Your task to perform on an android device: open wifi settings Image 0: 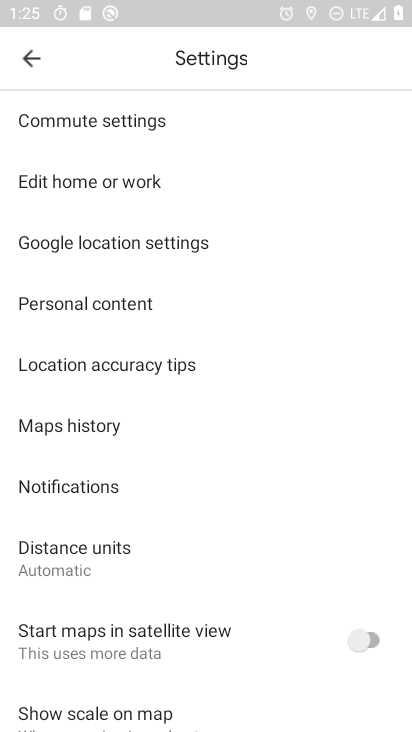
Step 0: press home button
Your task to perform on an android device: open wifi settings Image 1: 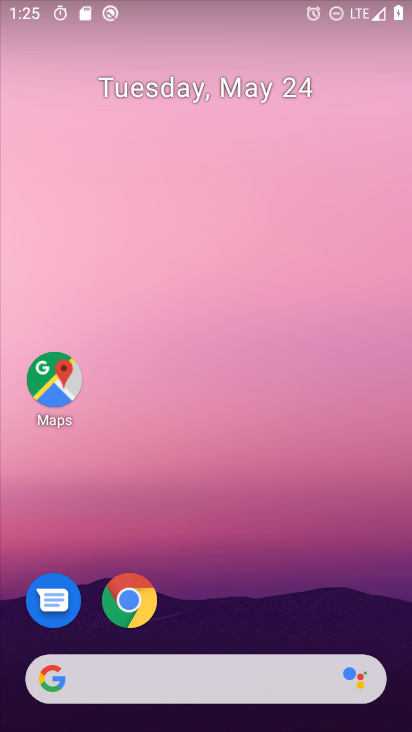
Step 1: drag from (215, 577) to (201, 120)
Your task to perform on an android device: open wifi settings Image 2: 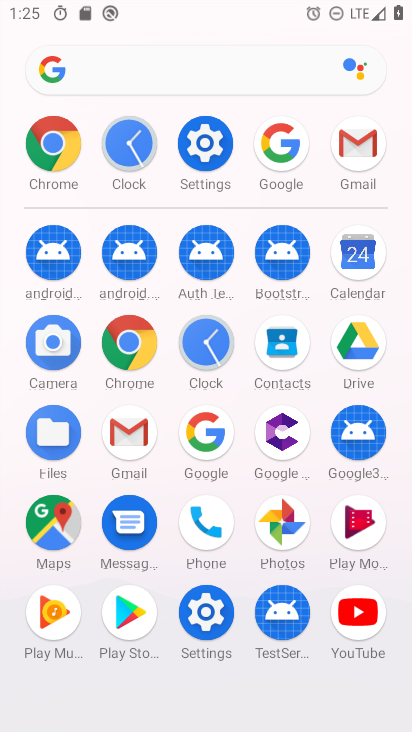
Step 2: click (209, 154)
Your task to perform on an android device: open wifi settings Image 3: 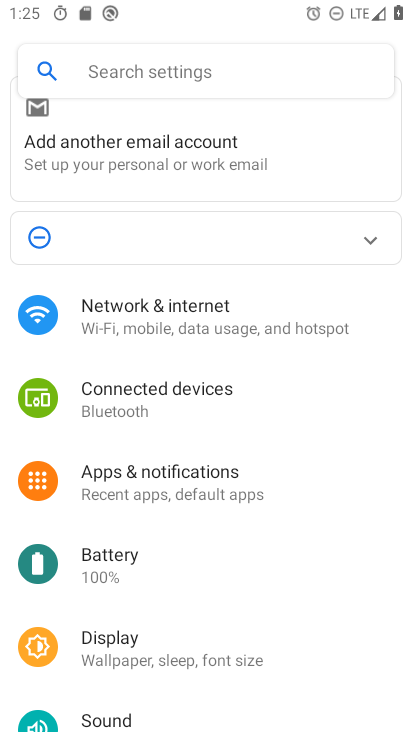
Step 3: click (195, 332)
Your task to perform on an android device: open wifi settings Image 4: 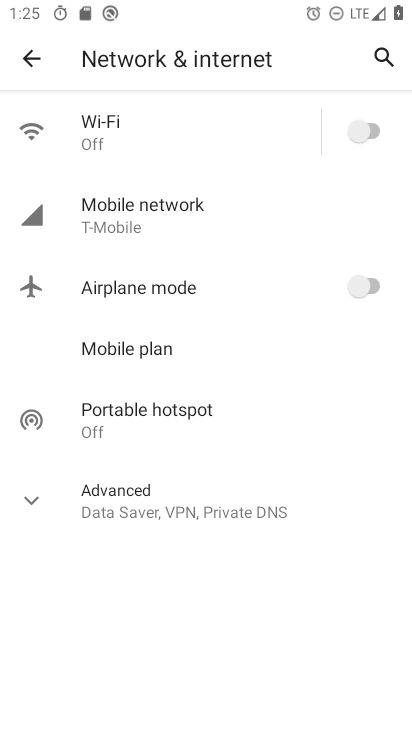
Step 4: click (247, 125)
Your task to perform on an android device: open wifi settings Image 5: 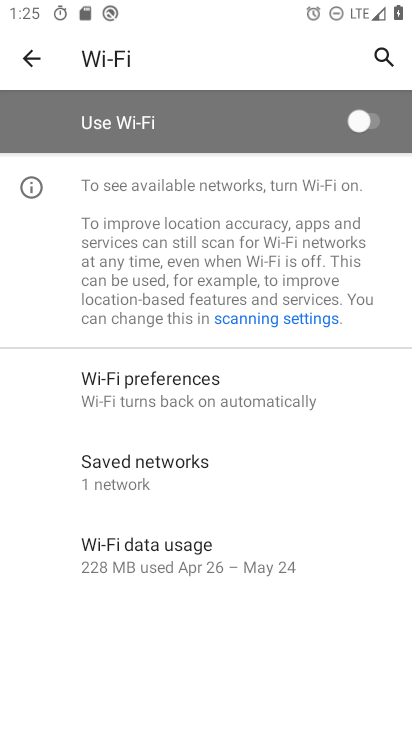
Step 5: click (356, 122)
Your task to perform on an android device: open wifi settings Image 6: 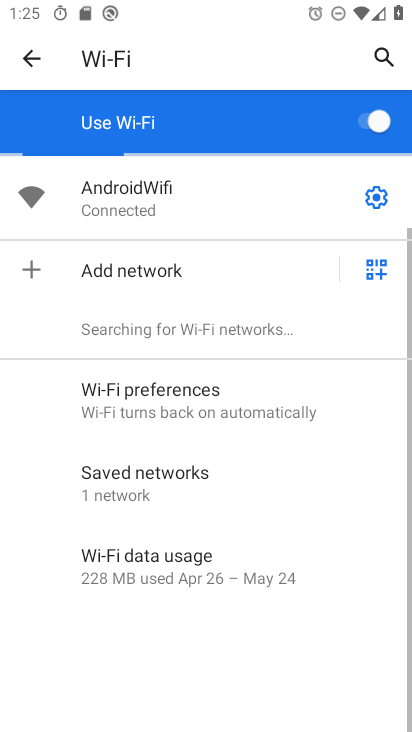
Step 6: click (382, 213)
Your task to perform on an android device: open wifi settings Image 7: 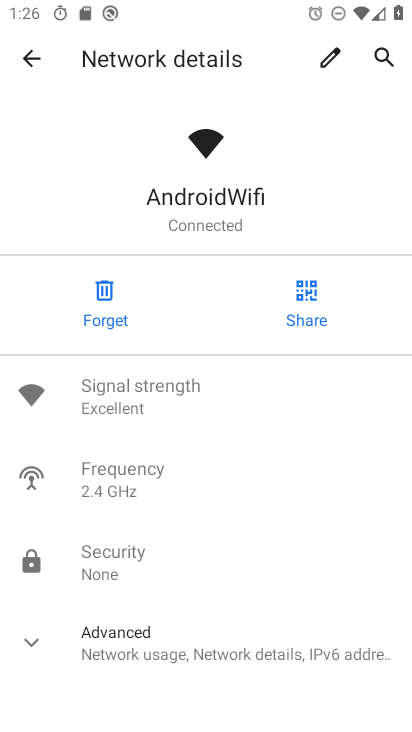
Step 7: task complete